Your task to perform on an android device: turn on notifications settings in the gmail app Image 0: 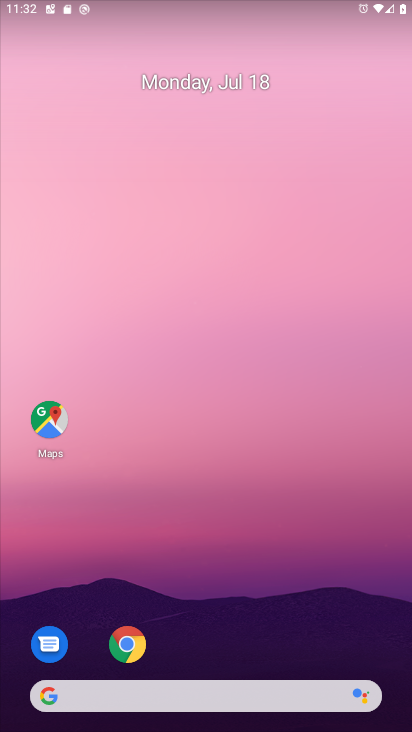
Step 0: task complete